Your task to perform on an android device: Turn on the flashlight Image 0: 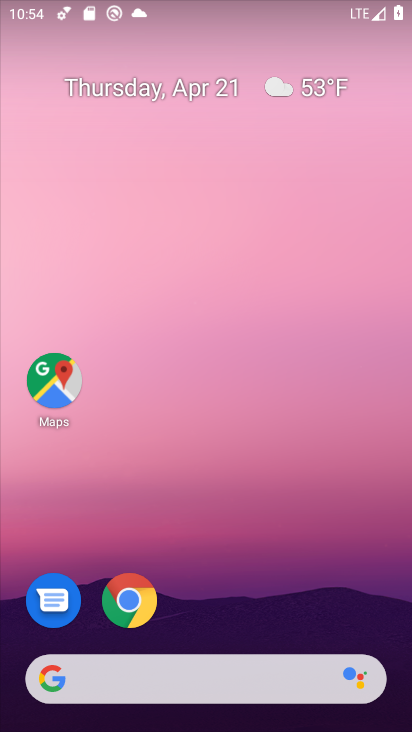
Step 0: drag from (216, 59) to (210, 536)
Your task to perform on an android device: Turn on the flashlight Image 1: 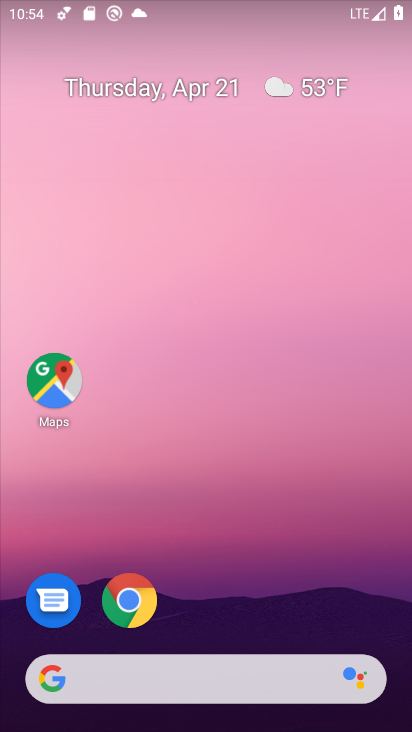
Step 1: task complete